Your task to perform on an android device: Open Google Chrome and open the bookmarks view Image 0: 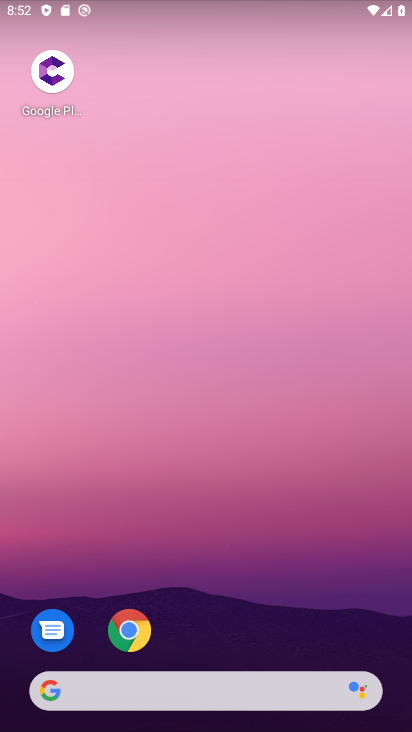
Step 0: click (130, 634)
Your task to perform on an android device: Open Google Chrome and open the bookmarks view Image 1: 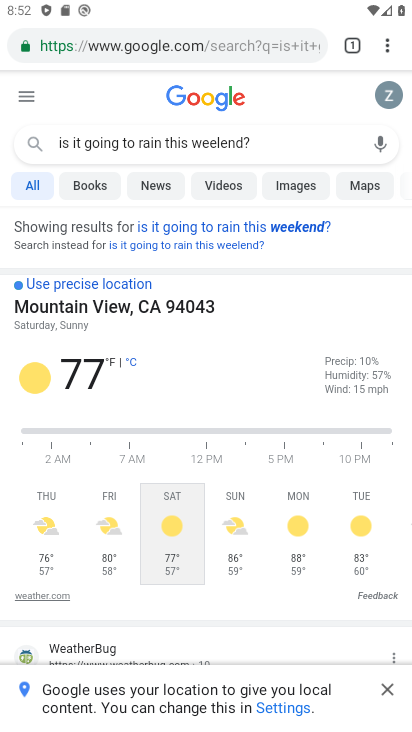
Step 1: task complete